Your task to perform on an android device: change keyboard looks Image 0: 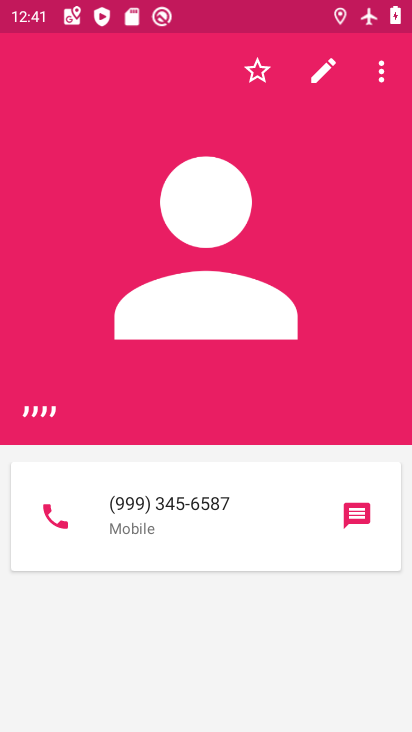
Step 0: drag from (209, 609) to (293, 236)
Your task to perform on an android device: change keyboard looks Image 1: 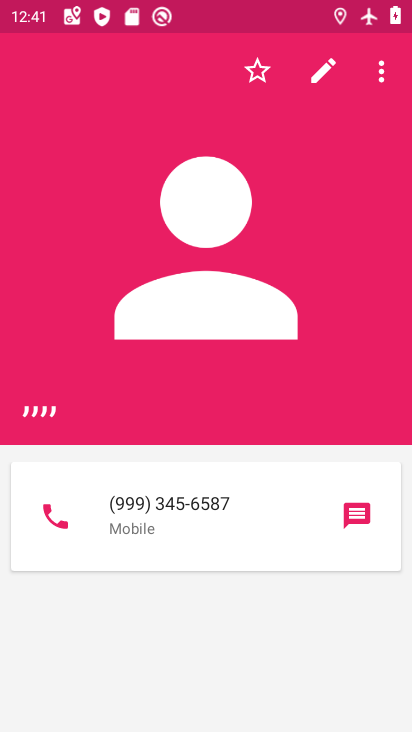
Step 1: press home button
Your task to perform on an android device: change keyboard looks Image 2: 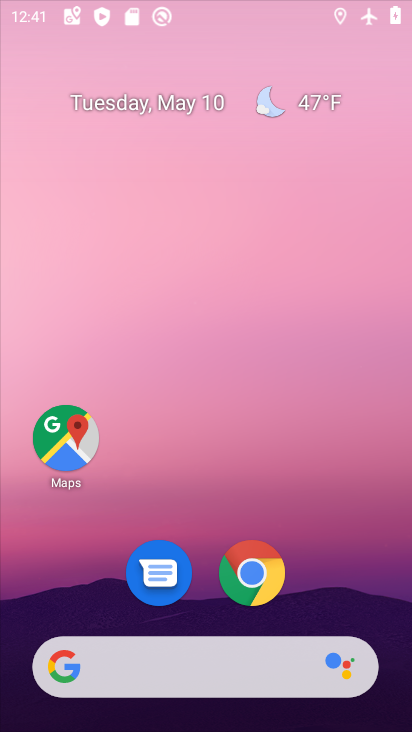
Step 2: drag from (295, 604) to (338, 255)
Your task to perform on an android device: change keyboard looks Image 3: 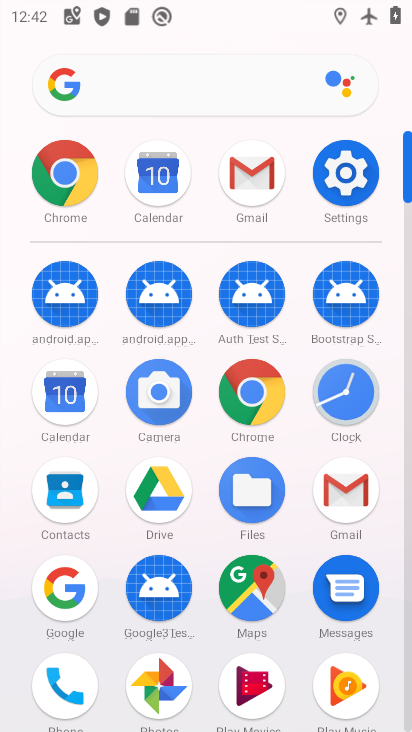
Step 3: click (361, 178)
Your task to perform on an android device: change keyboard looks Image 4: 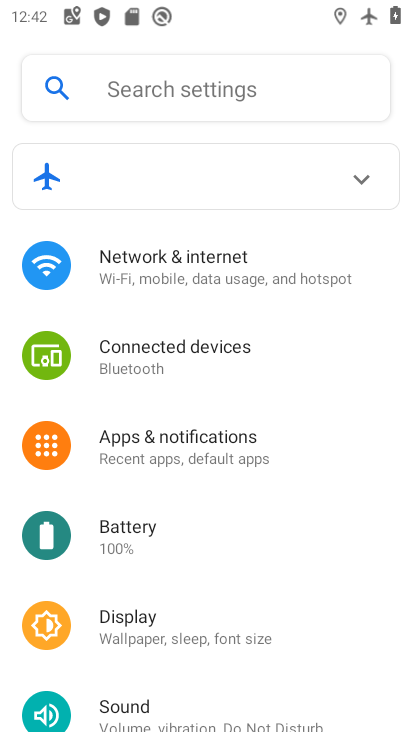
Step 4: drag from (235, 595) to (345, 237)
Your task to perform on an android device: change keyboard looks Image 5: 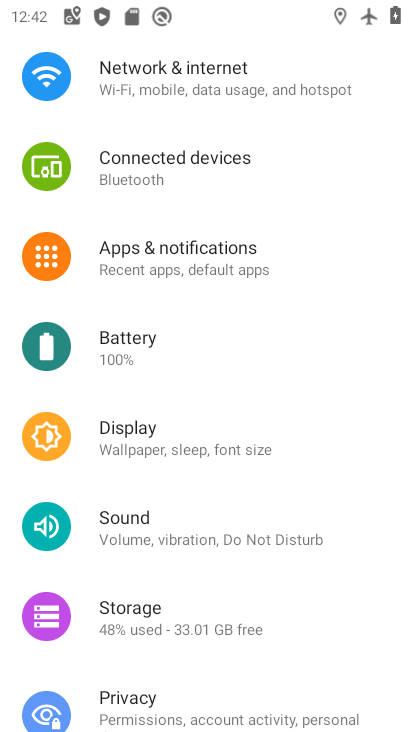
Step 5: drag from (167, 629) to (210, 304)
Your task to perform on an android device: change keyboard looks Image 6: 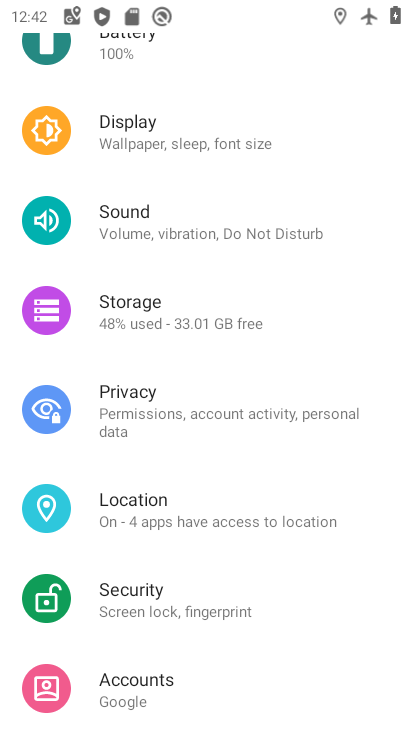
Step 6: drag from (184, 661) to (214, 377)
Your task to perform on an android device: change keyboard looks Image 7: 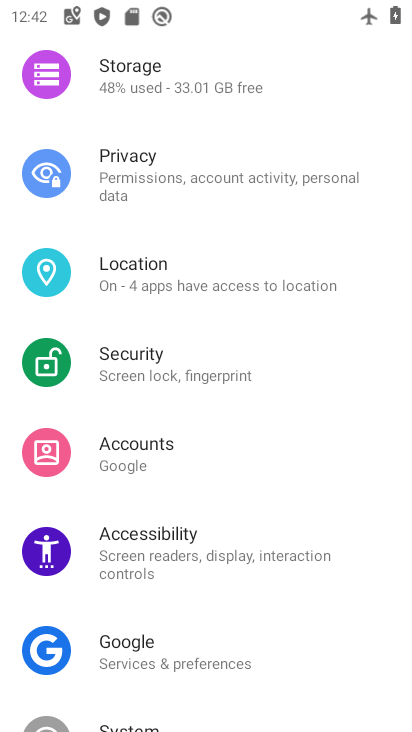
Step 7: drag from (187, 659) to (324, 193)
Your task to perform on an android device: change keyboard looks Image 8: 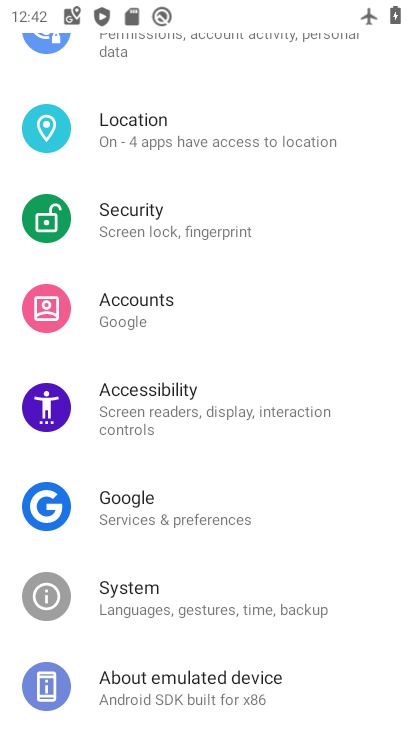
Step 8: click (176, 585)
Your task to perform on an android device: change keyboard looks Image 9: 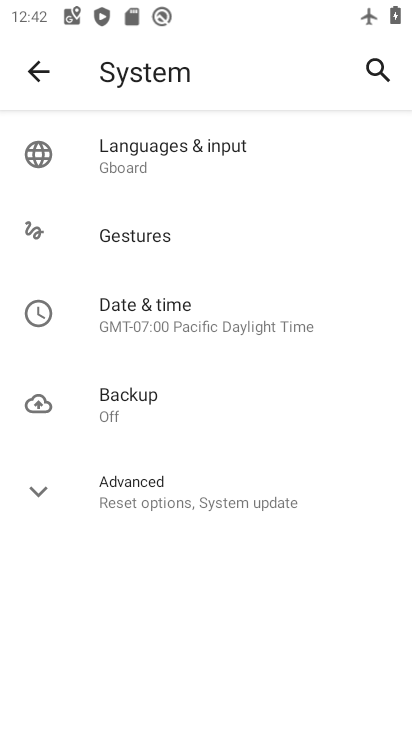
Step 9: click (134, 157)
Your task to perform on an android device: change keyboard looks Image 10: 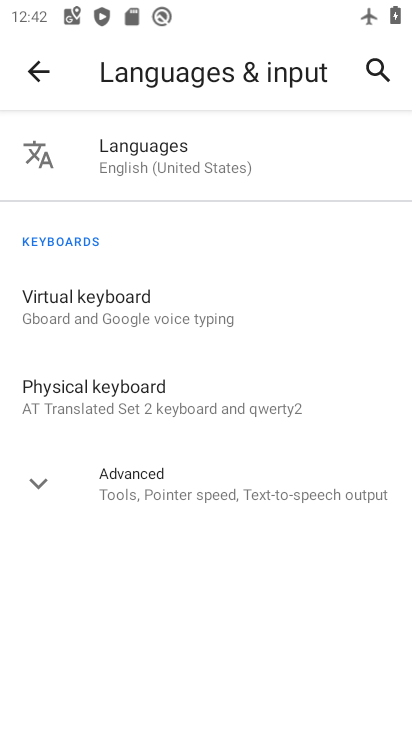
Step 10: click (149, 305)
Your task to perform on an android device: change keyboard looks Image 11: 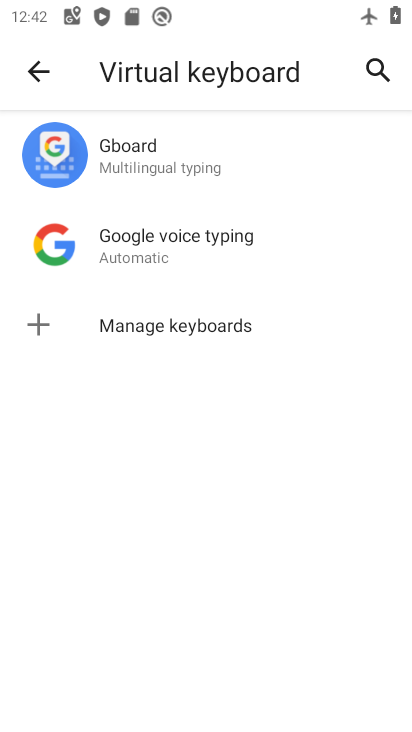
Step 11: click (190, 168)
Your task to perform on an android device: change keyboard looks Image 12: 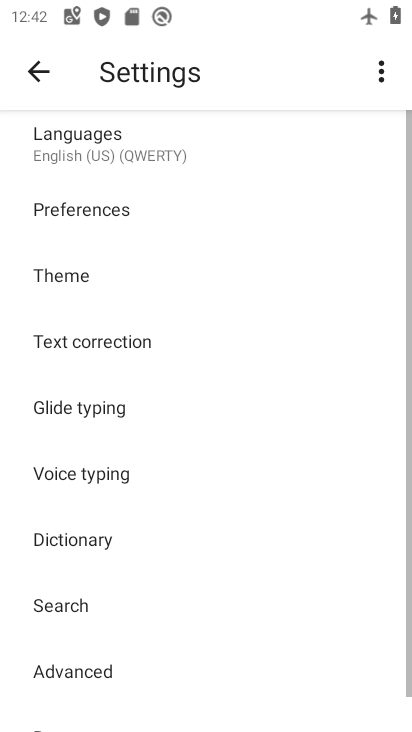
Step 12: click (100, 276)
Your task to perform on an android device: change keyboard looks Image 13: 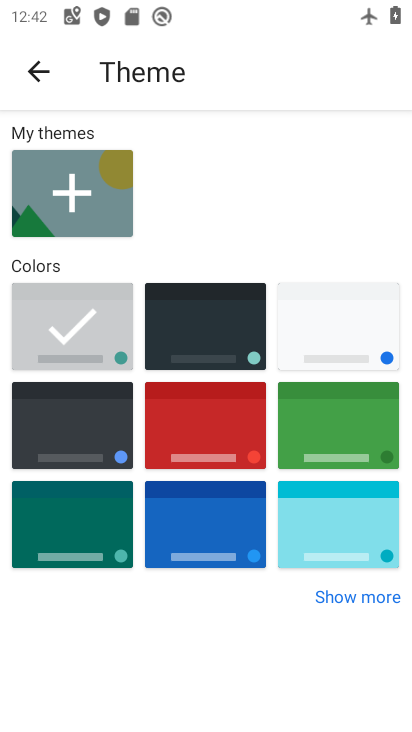
Step 13: click (86, 443)
Your task to perform on an android device: change keyboard looks Image 14: 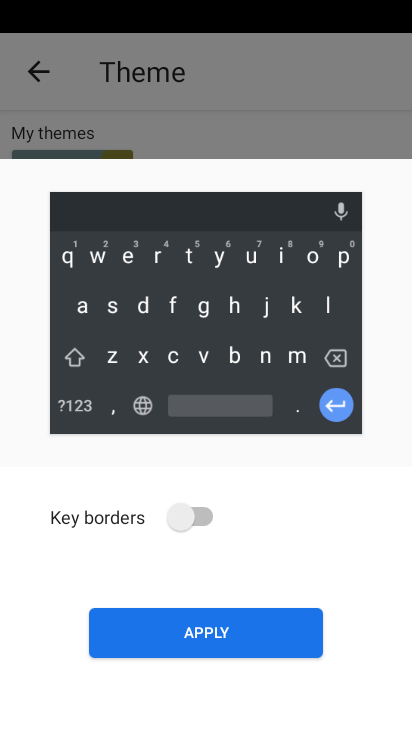
Step 14: click (191, 635)
Your task to perform on an android device: change keyboard looks Image 15: 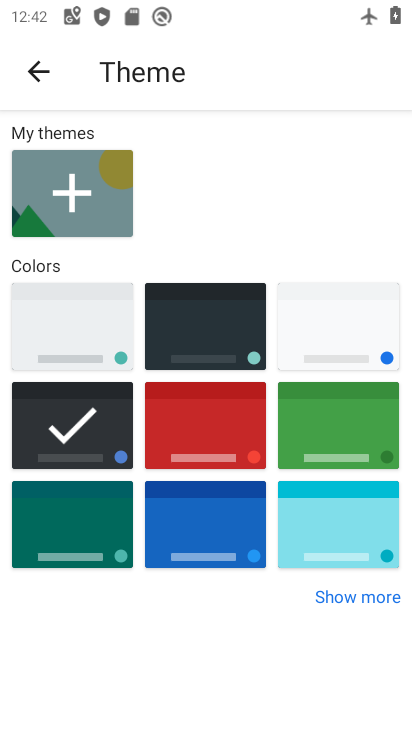
Step 15: task complete